Your task to perform on an android device: toggle wifi Image 0: 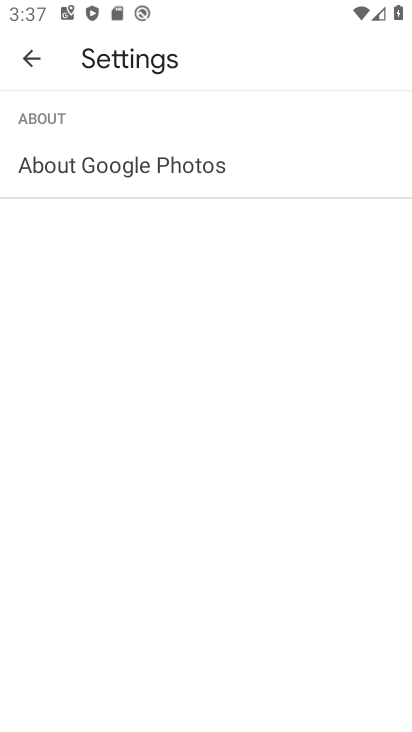
Step 0: press home button
Your task to perform on an android device: toggle wifi Image 1: 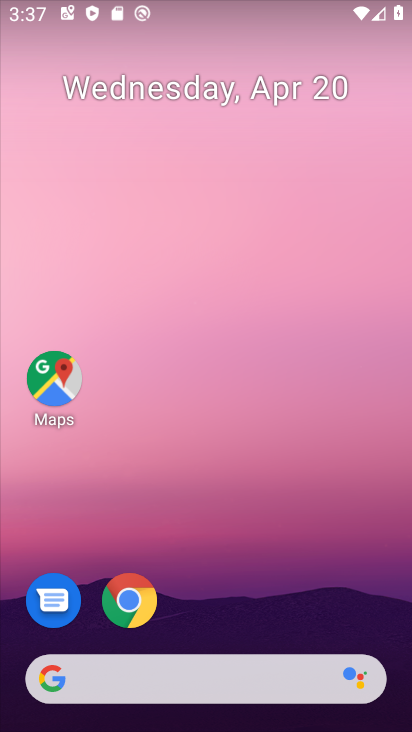
Step 1: drag from (290, 608) to (217, 150)
Your task to perform on an android device: toggle wifi Image 2: 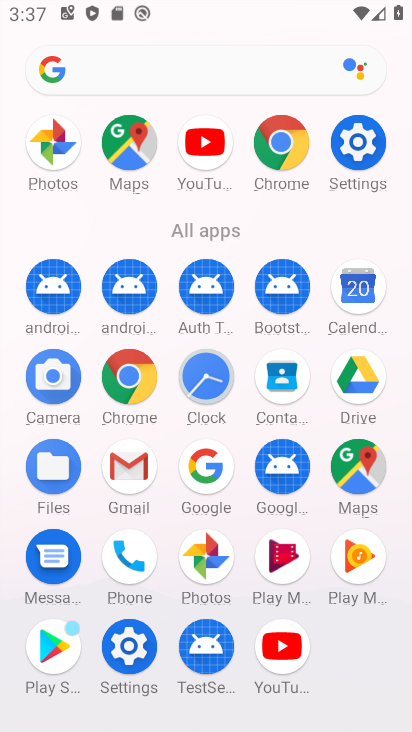
Step 2: click (378, 152)
Your task to perform on an android device: toggle wifi Image 3: 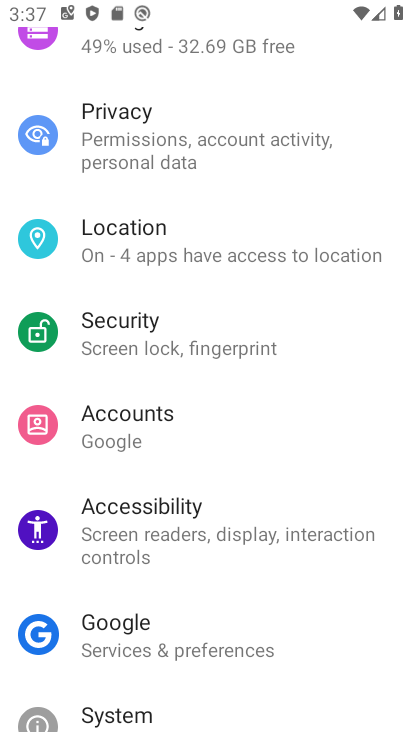
Step 3: drag from (275, 167) to (293, 637)
Your task to perform on an android device: toggle wifi Image 4: 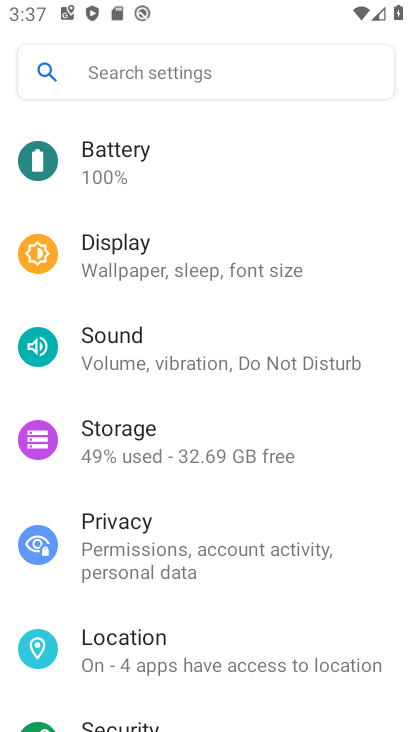
Step 4: drag from (282, 151) to (249, 545)
Your task to perform on an android device: toggle wifi Image 5: 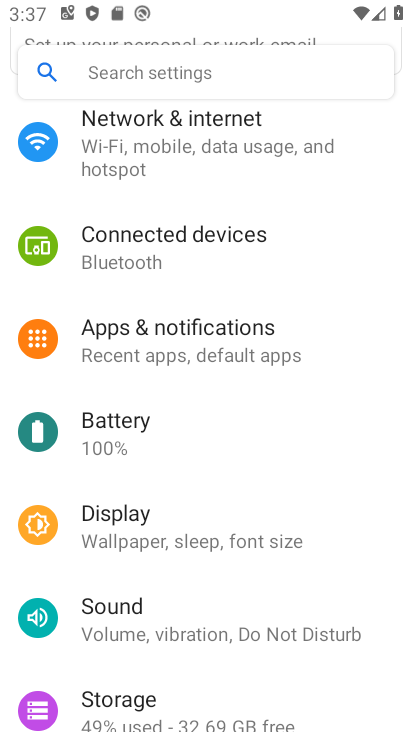
Step 5: click (195, 146)
Your task to perform on an android device: toggle wifi Image 6: 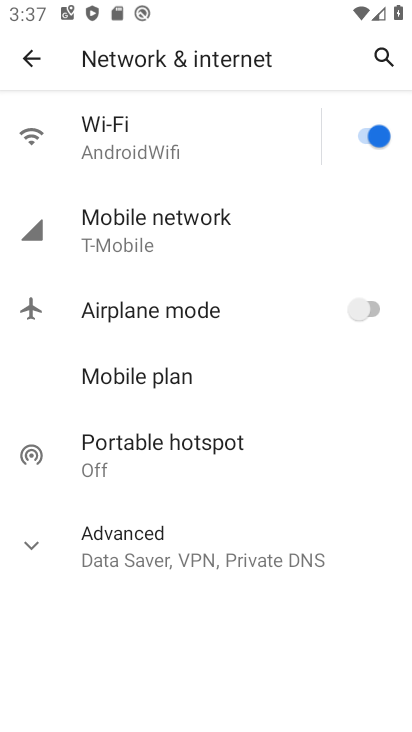
Step 6: click (195, 146)
Your task to perform on an android device: toggle wifi Image 7: 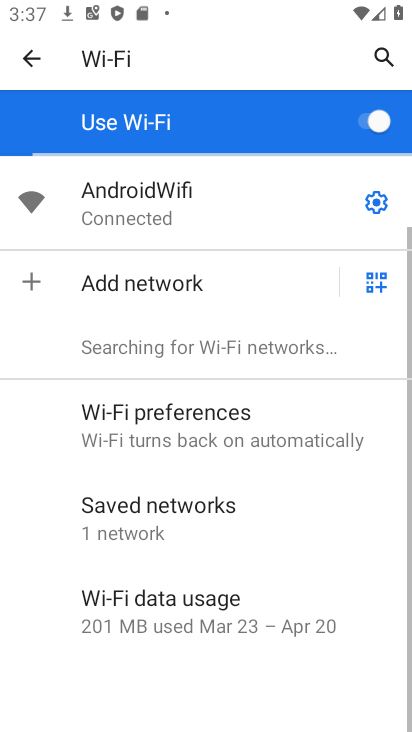
Step 7: click (371, 115)
Your task to perform on an android device: toggle wifi Image 8: 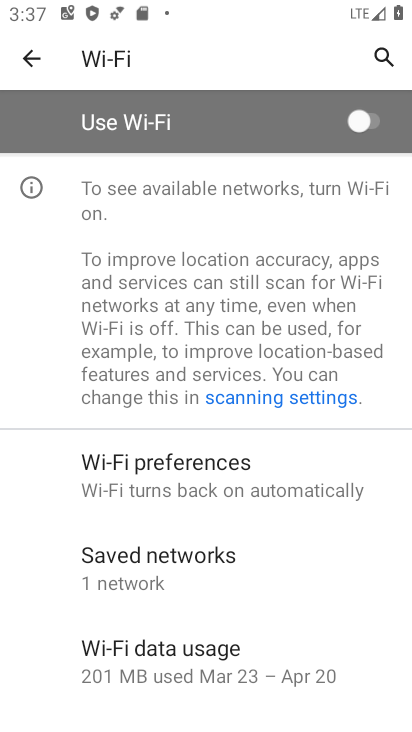
Step 8: task complete